Your task to perform on an android device: delete location history Image 0: 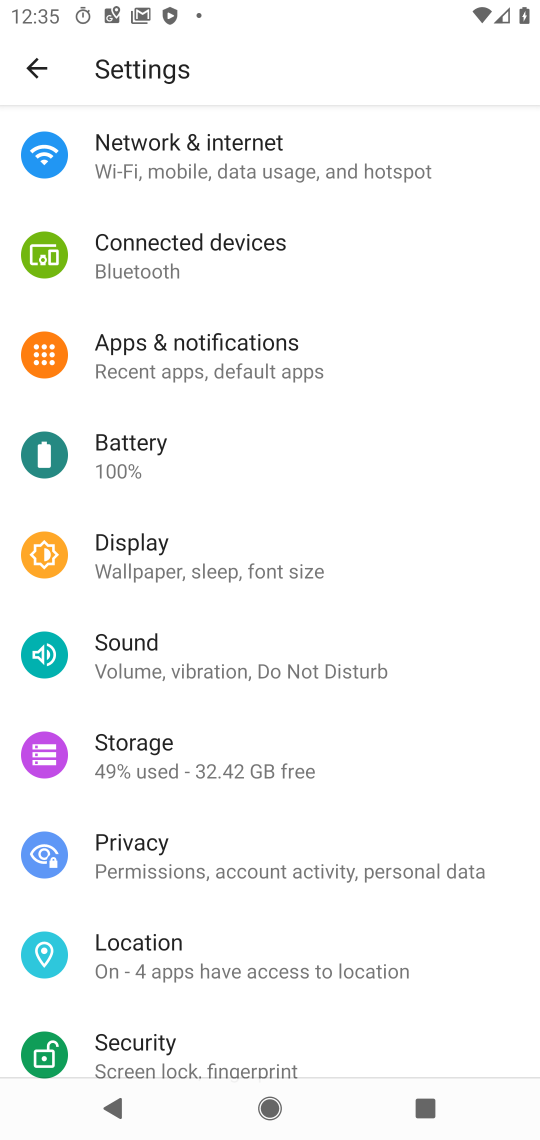
Step 0: press home button
Your task to perform on an android device: delete location history Image 1: 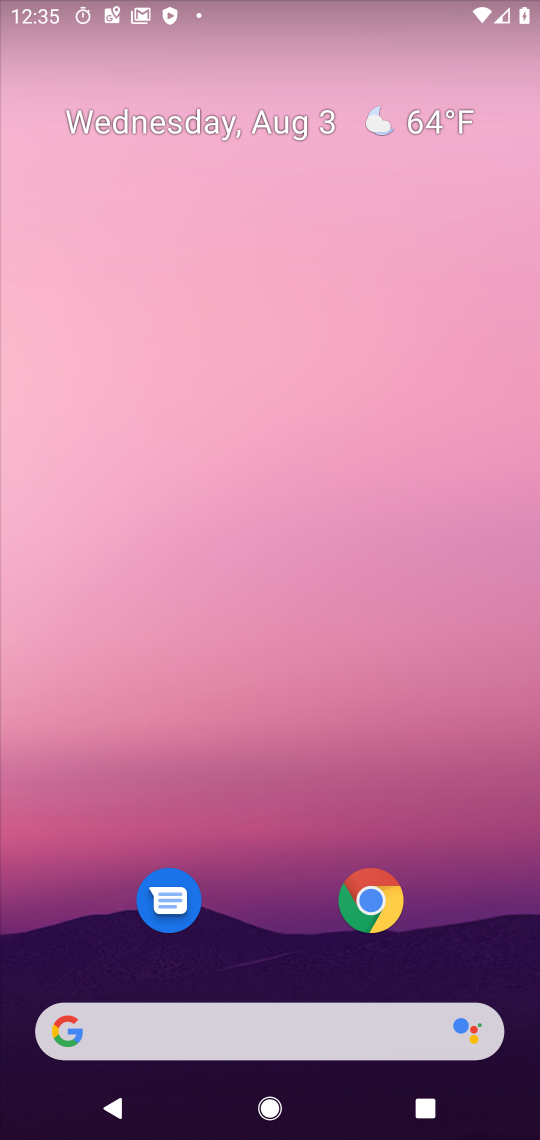
Step 1: drag from (281, 923) to (303, 144)
Your task to perform on an android device: delete location history Image 2: 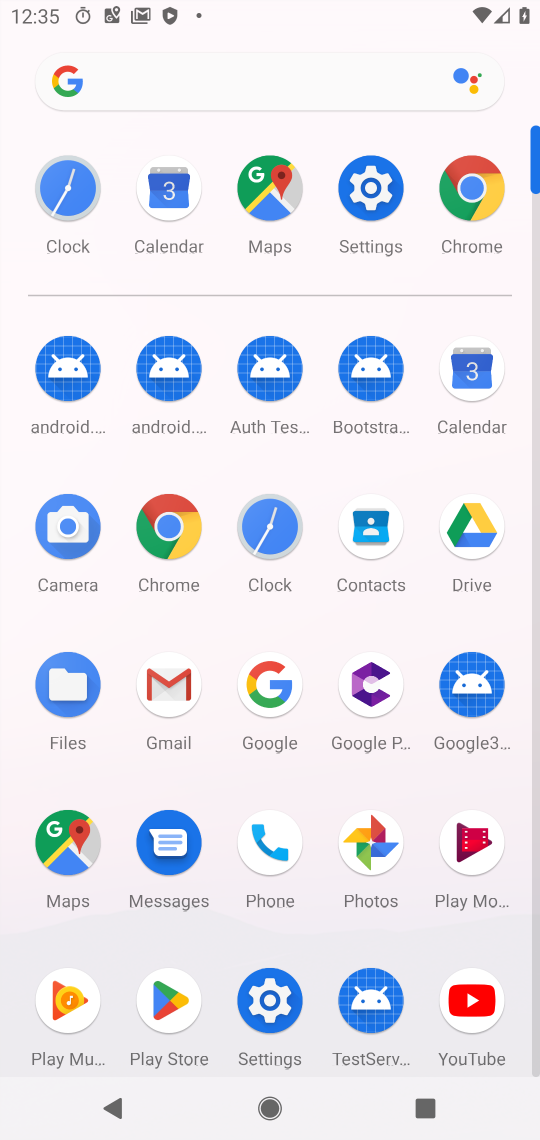
Step 2: click (268, 182)
Your task to perform on an android device: delete location history Image 3: 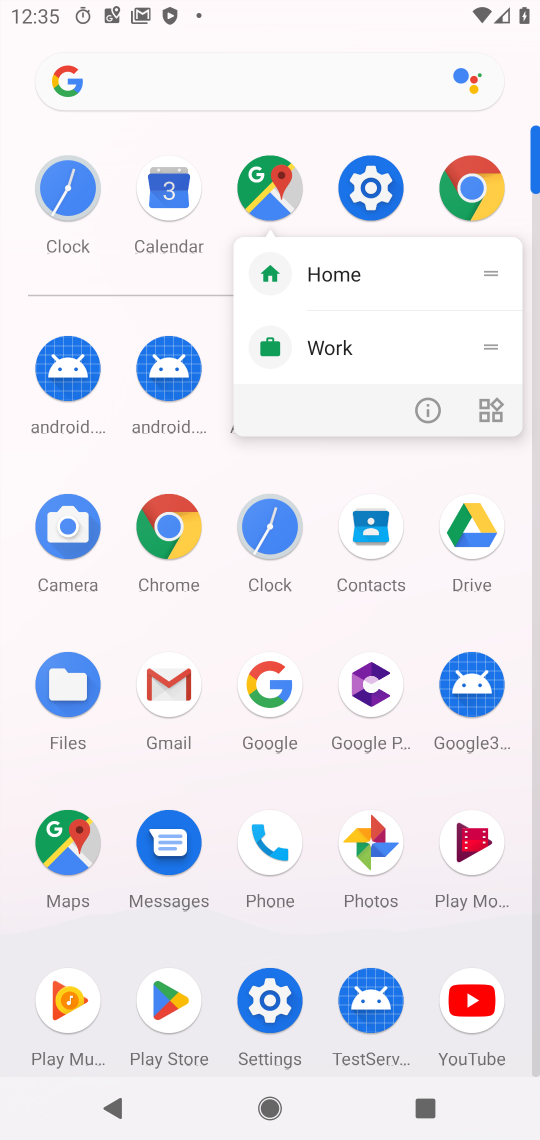
Step 3: click (69, 835)
Your task to perform on an android device: delete location history Image 4: 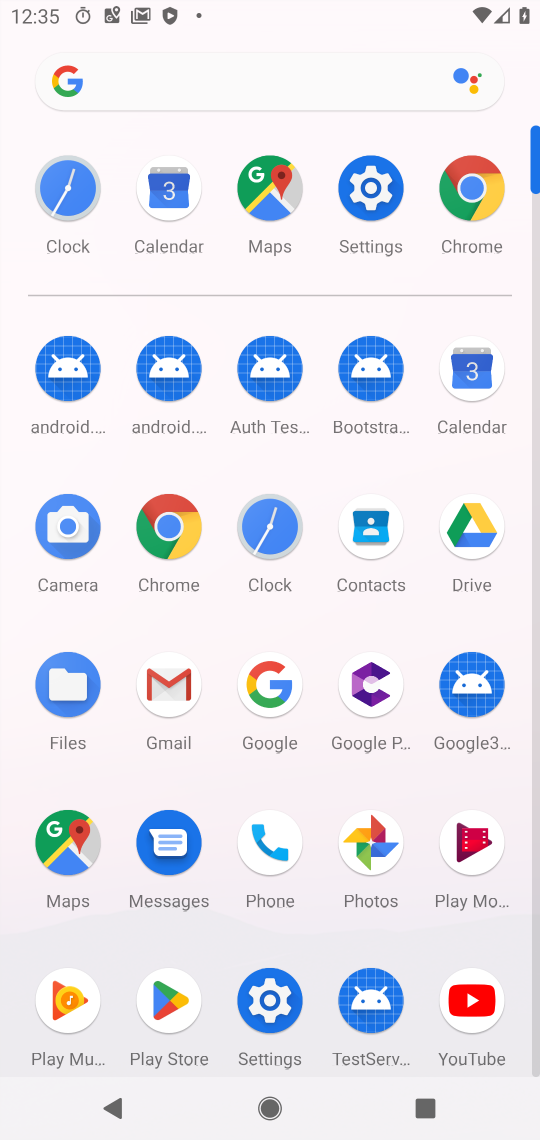
Step 4: click (63, 844)
Your task to perform on an android device: delete location history Image 5: 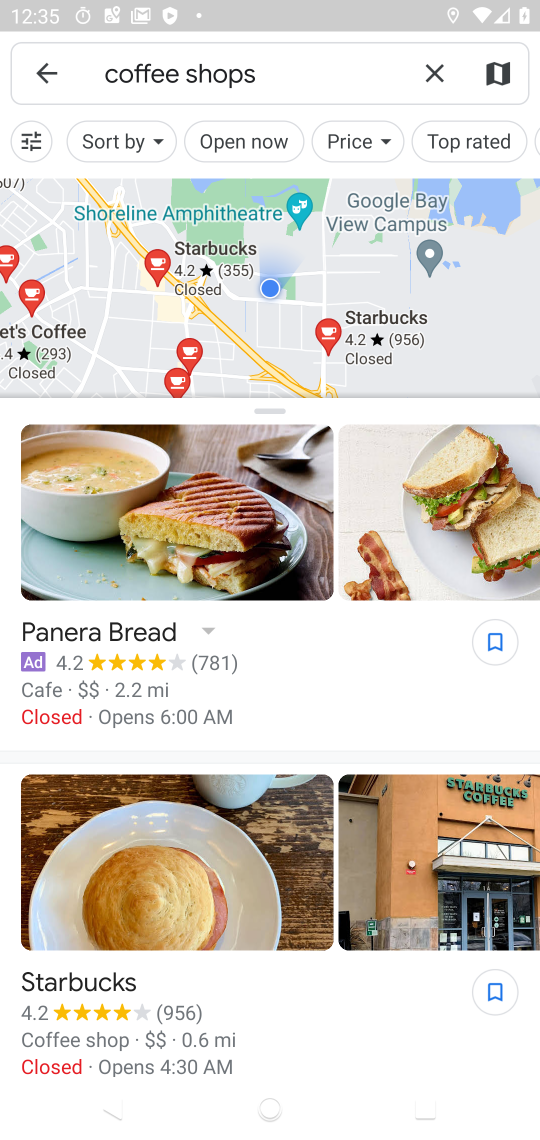
Step 5: click (44, 64)
Your task to perform on an android device: delete location history Image 6: 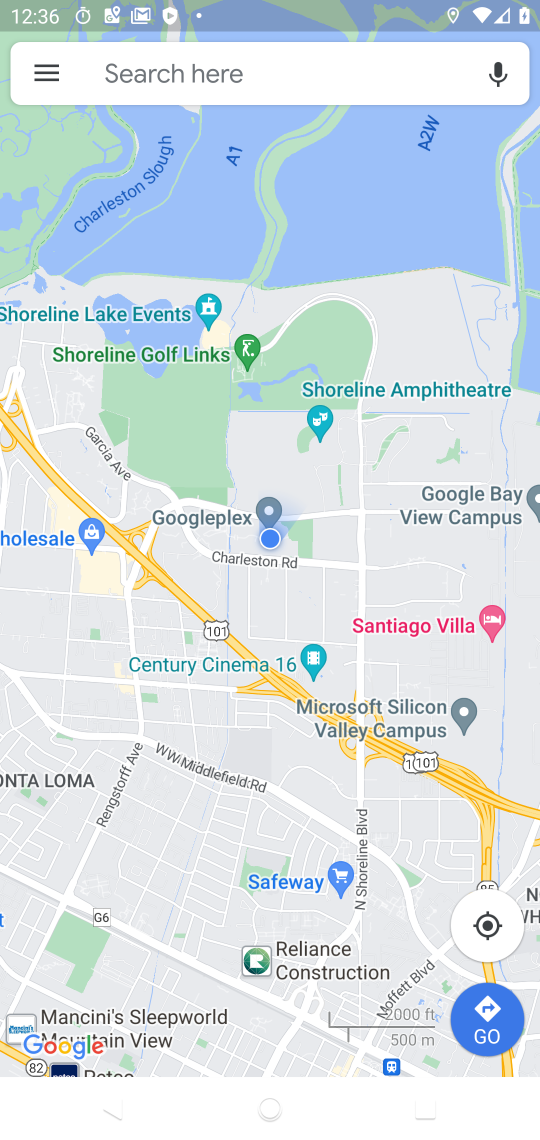
Step 6: click (37, 75)
Your task to perform on an android device: delete location history Image 7: 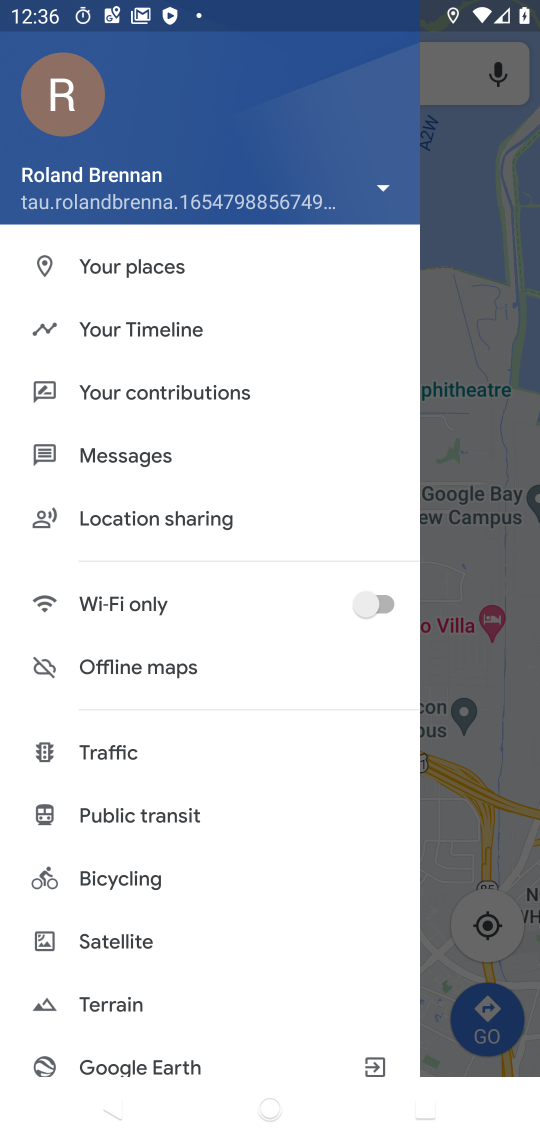
Step 7: drag from (159, 912) to (253, 294)
Your task to perform on an android device: delete location history Image 8: 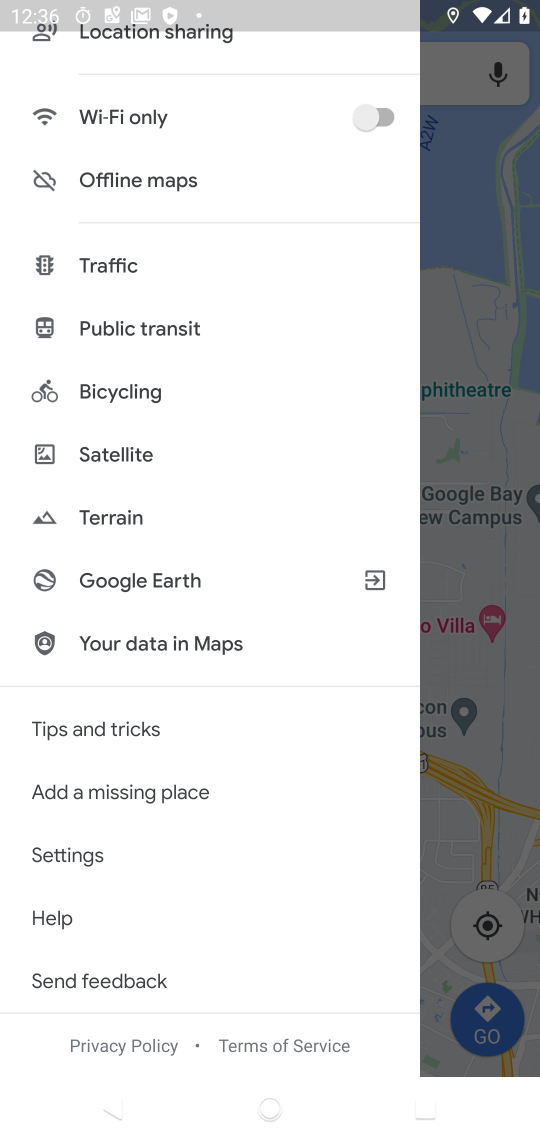
Step 8: click (88, 863)
Your task to perform on an android device: delete location history Image 9: 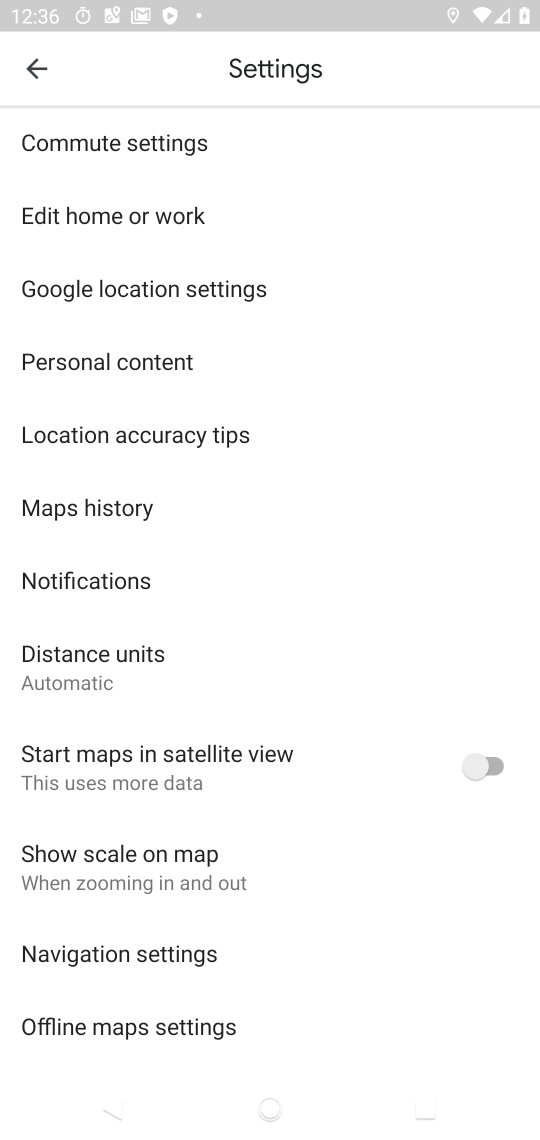
Step 9: click (131, 505)
Your task to perform on an android device: delete location history Image 10: 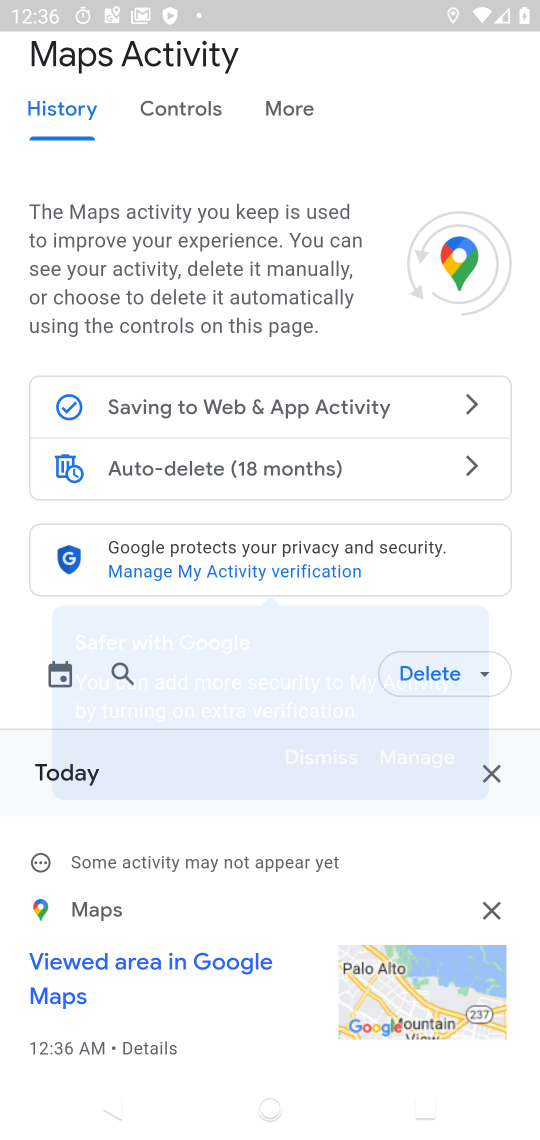
Step 10: click (439, 660)
Your task to perform on an android device: delete location history Image 11: 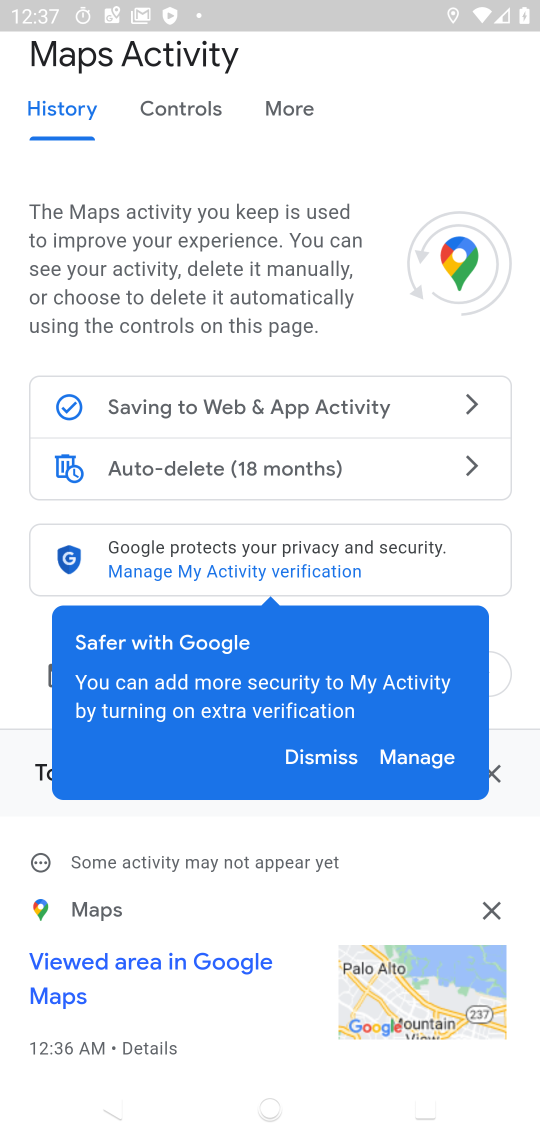
Step 11: click (312, 751)
Your task to perform on an android device: delete location history Image 12: 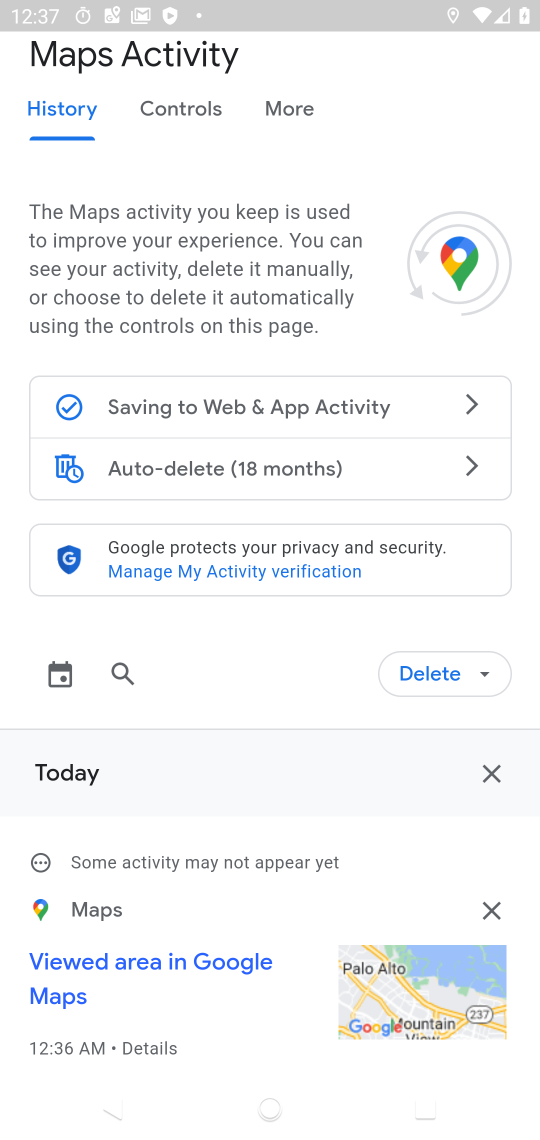
Step 12: click (454, 670)
Your task to perform on an android device: delete location history Image 13: 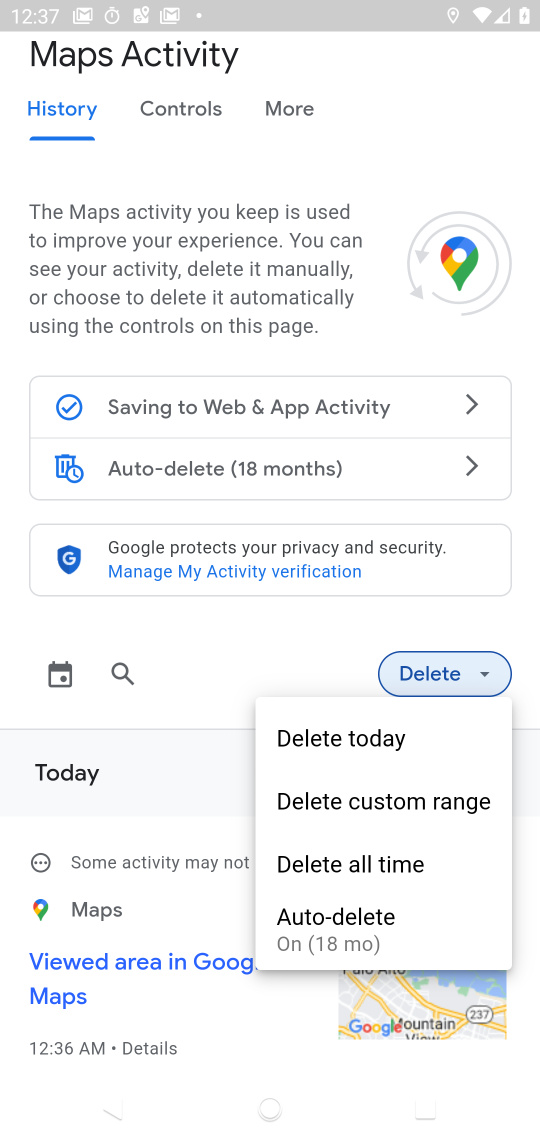
Step 13: click (353, 855)
Your task to perform on an android device: delete location history Image 14: 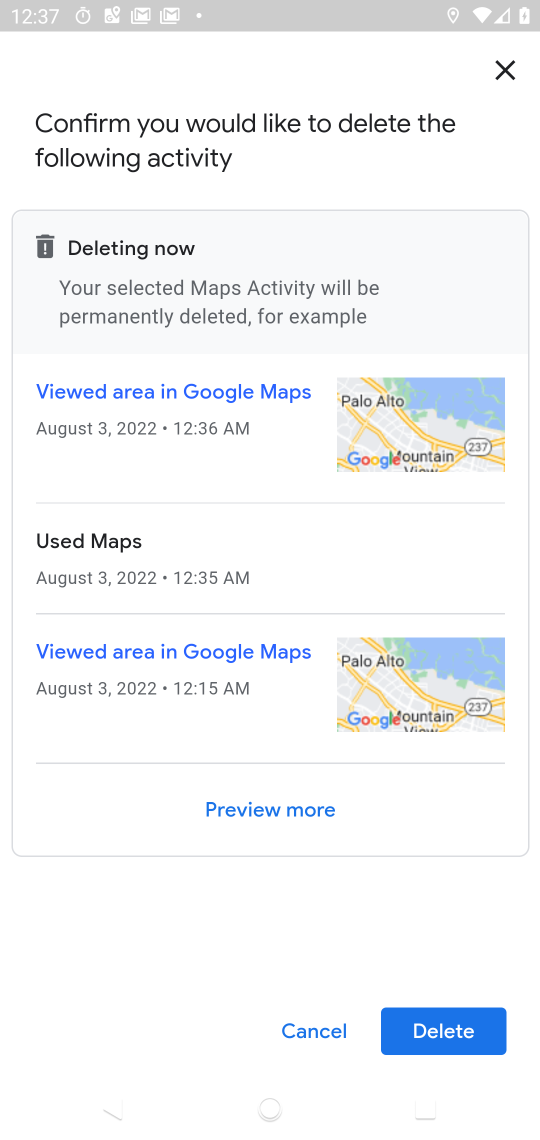
Step 14: click (446, 1020)
Your task to perform on an android device: delete location history Image 15: 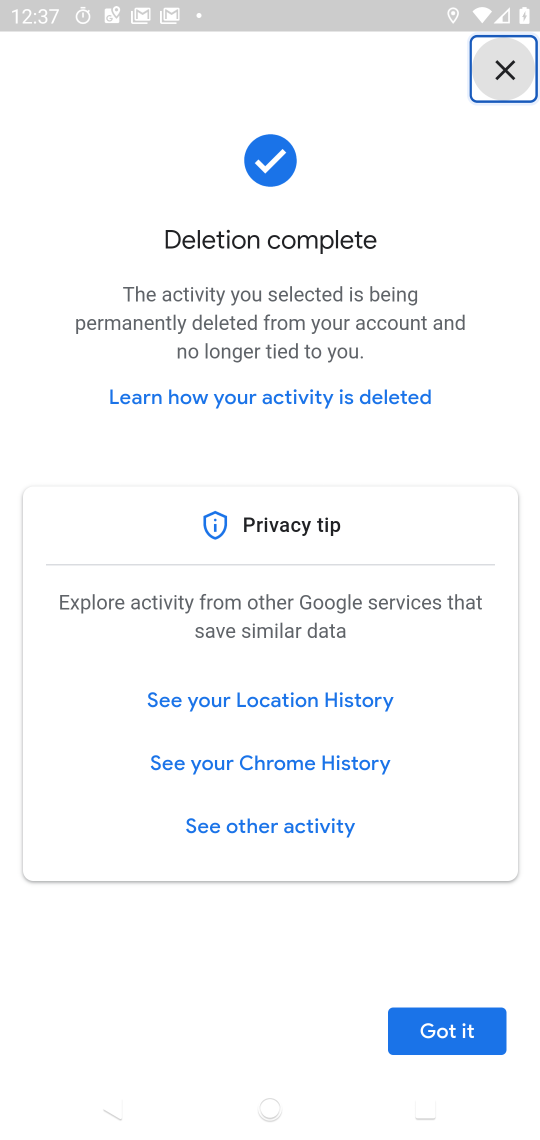
Step 15: click (461, 1031)
Your task to perform on an android device: delete location history Image 16: 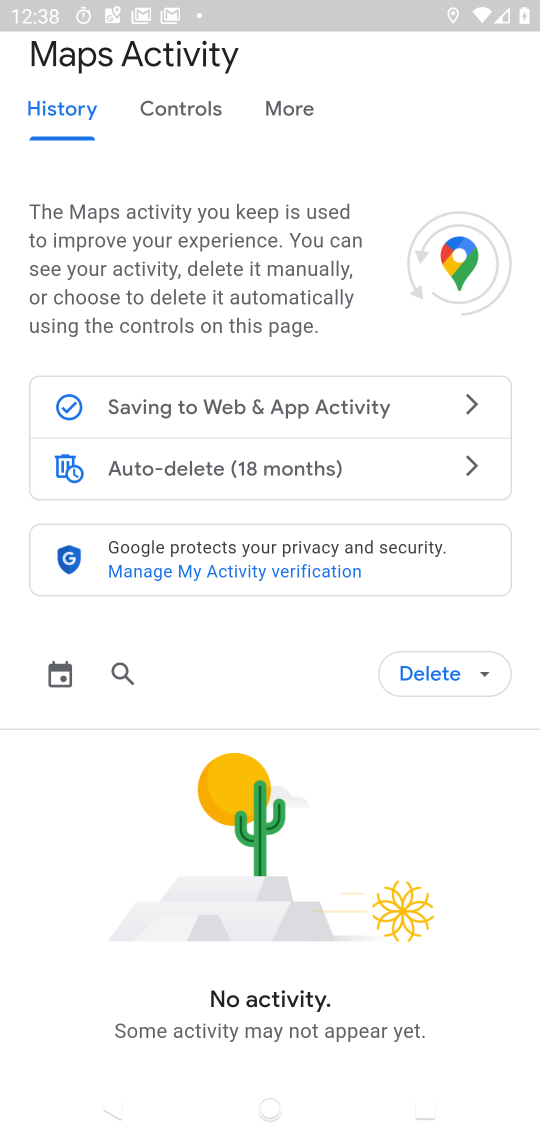
Step 16: task complete